Your task to perform on an android device: Open Chrome and go to settings Image 0: 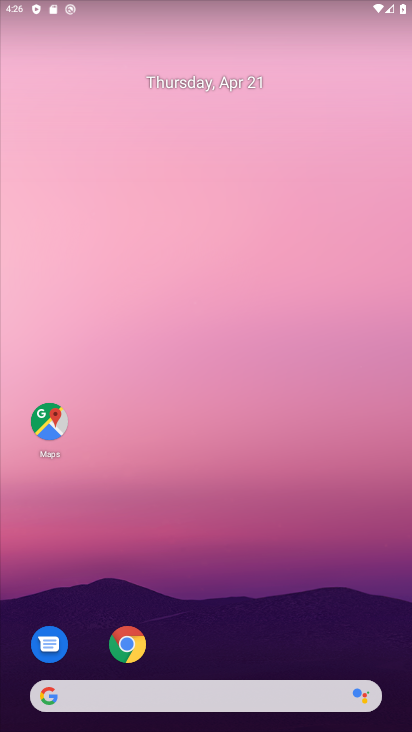
Step 0: click (124, 646)
Your task to perform on an android device: Open Chrome and go to settings Image 1: 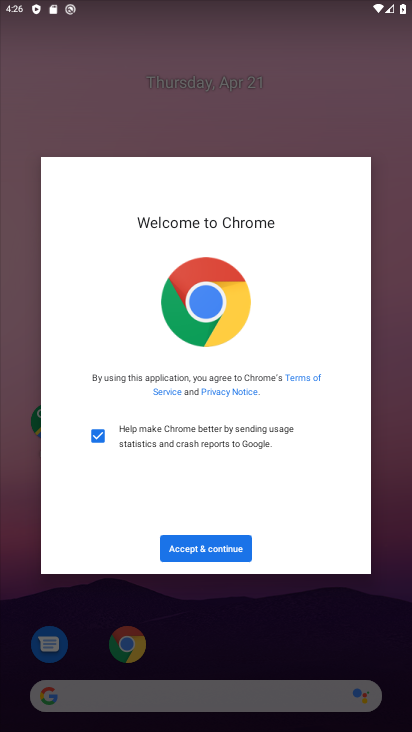
Step 1: click (209, 549)
Your task to perform on an android device: Open Chrome and go to settings Image 2: 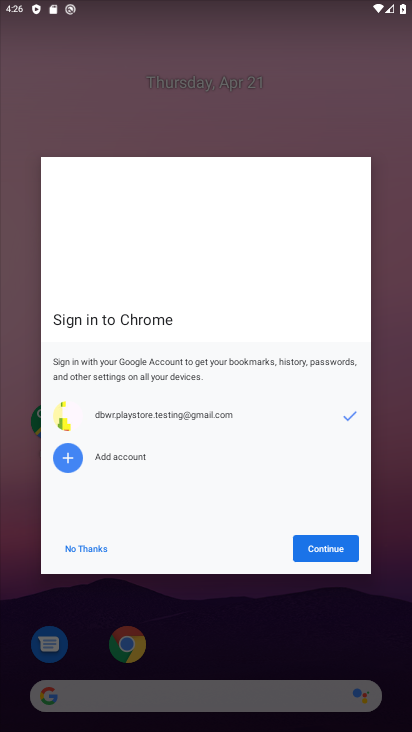
Step 2: click (321, 545)
Your task to perform on an android device: Open Chrome and go to settings Image 3: 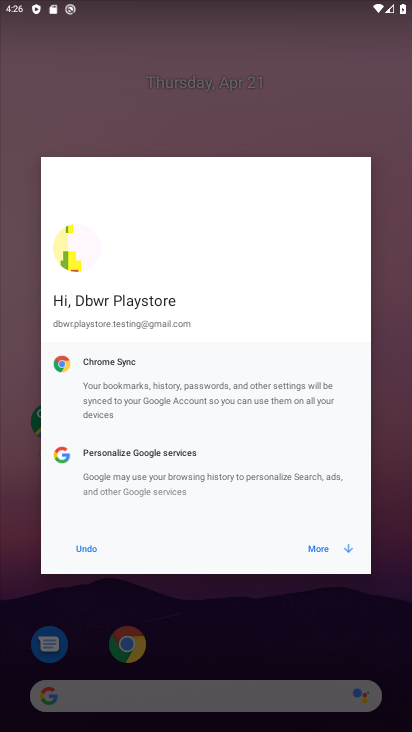
Step 3: click (320, 549)
Your task to perform on an android device: Open Chrome and go to settings Image 4: 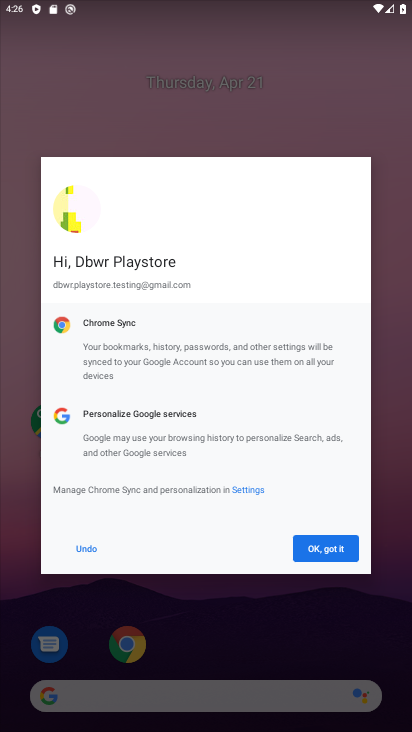
Step 4: click (316, 546)
Your task to perform on an android device: Open Chrome and go to settings Image 5: 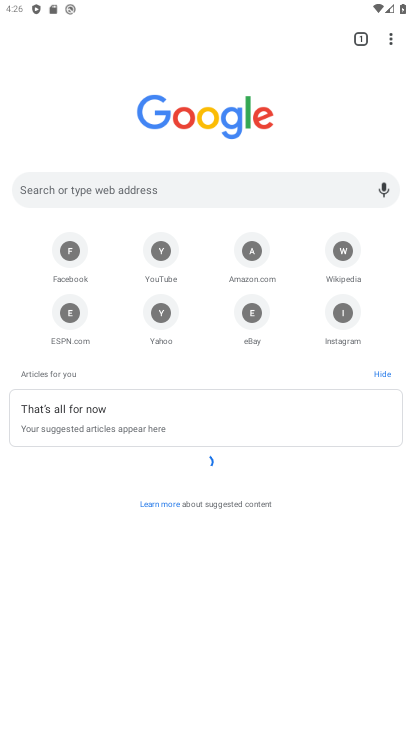
Step 5: task complete